Your task to perform on an android device: toggle location history Image 0: 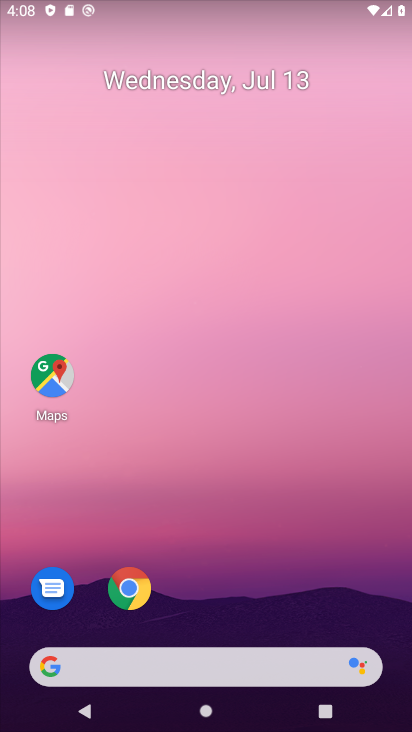
Step 0: drag from (30, 695) to (131, 253)
Your task to perform on an android device: toggle location history Image 1: 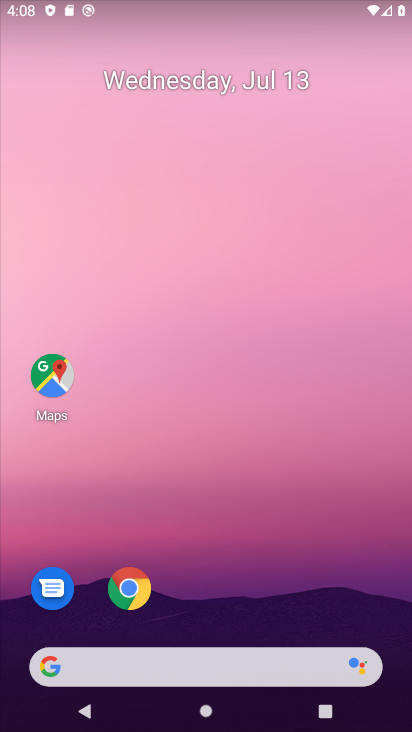
Step 1: drag from (52, 697) to (313, 24)
Your task to perform on an android device: toggle location history Image 2: 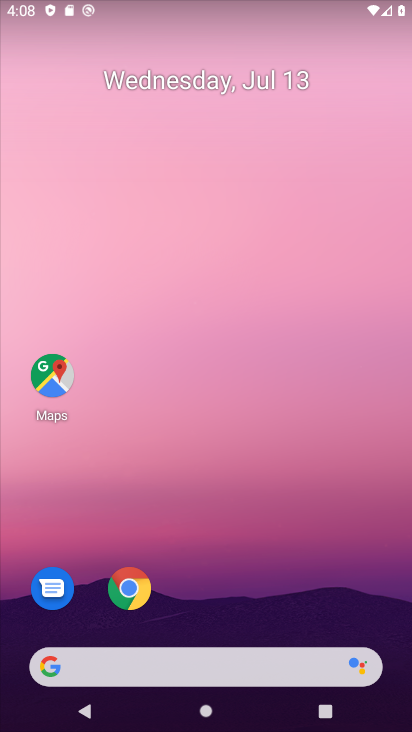
Step 2: drag from (34, 704) to (131, 121)
Your task to perform on an android device: toggle location history Image 3: 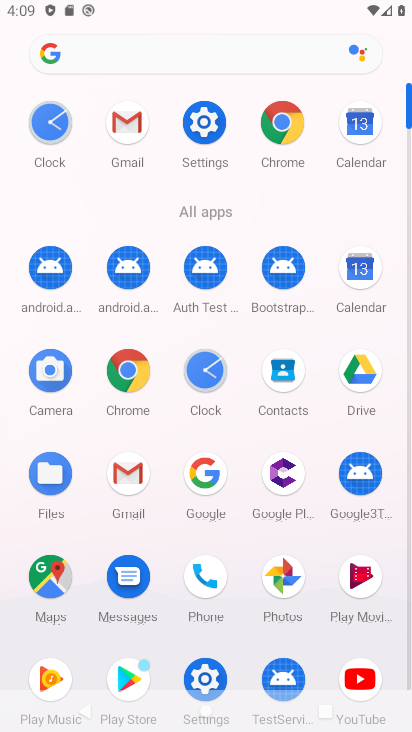
Step 3: click (212, 687)
Your task to perform on an android device: toggle location history Image 4: 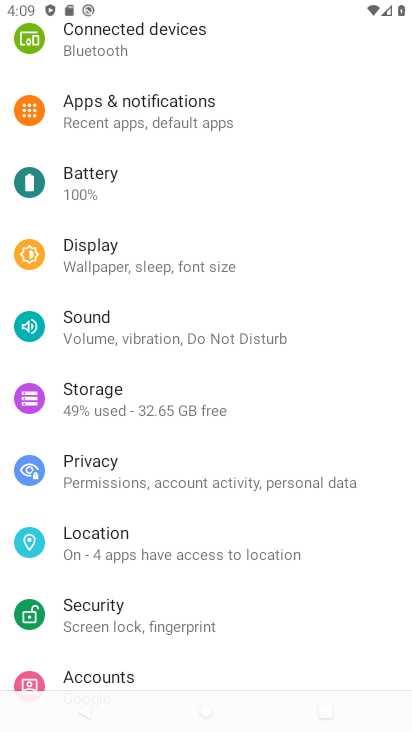
Step 4: click (119, 542)
Your task to perform on an android device: toggle location history Image 5: 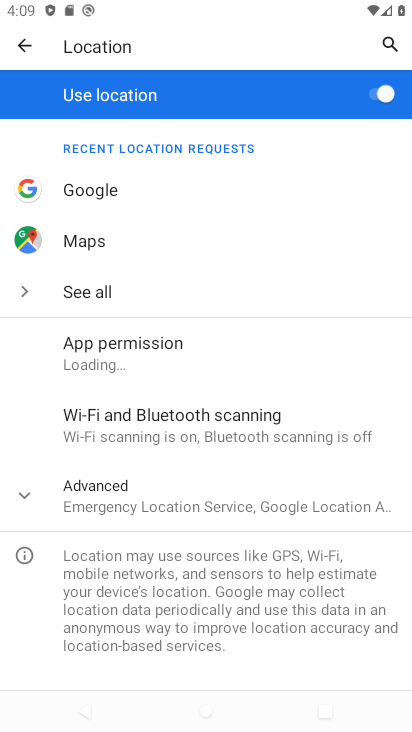
Step 5: task complete